Your task to perform on an android device: Open the stopwatch Image 0: 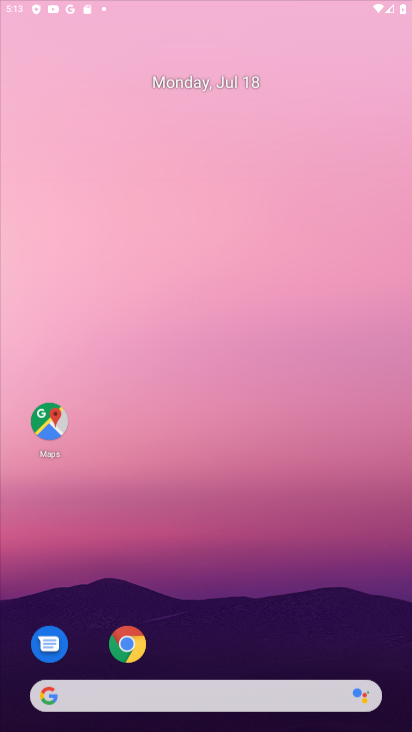
Step 0: press home button
Your task to perform on an android device: Open the stopwatch Image 1: 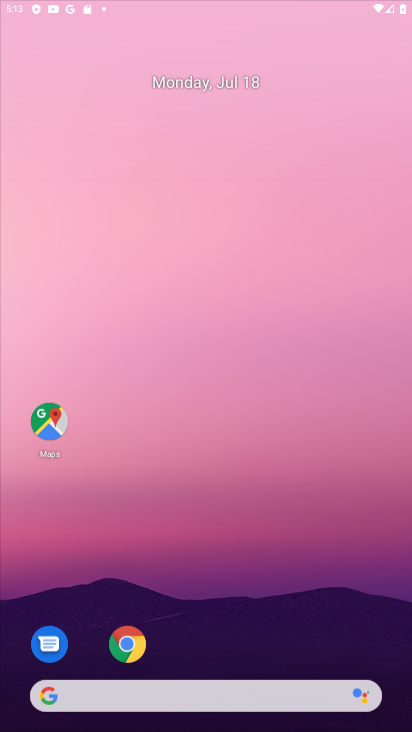
Step 1: drag from (168, 706) to (119, 18)
Your task to perform on an android device: Open the stopwatch Image 2: 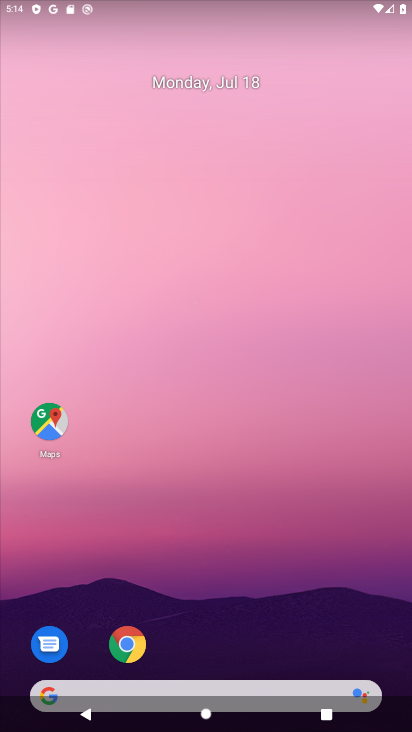
Step 2: drag from (195, 648) to (238, 9)
Your task to perform on an android device: Open the stopwatch Image 3: 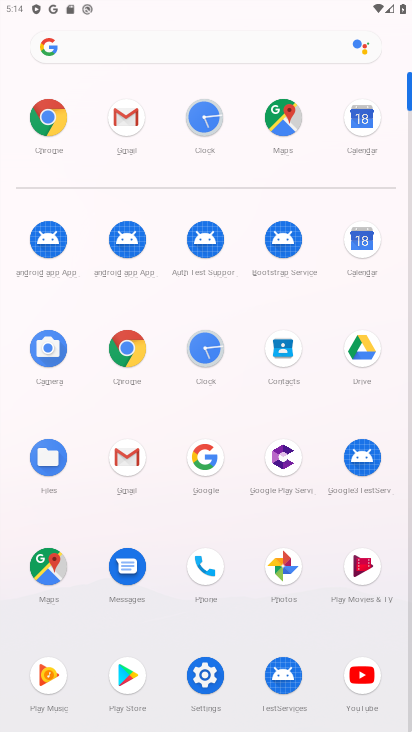
Step 3: click (202, 676)
Your task to perform on an android device: Open the stopwatch Image 4: 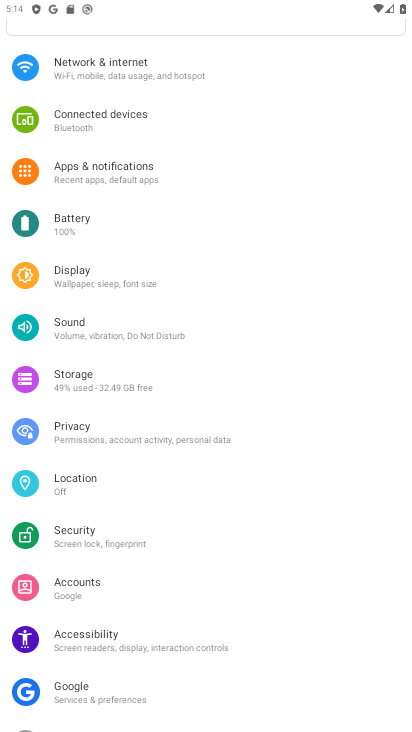
Step 4: press home button
Your task to perform on an android device: Open the stopwatch Image 5: 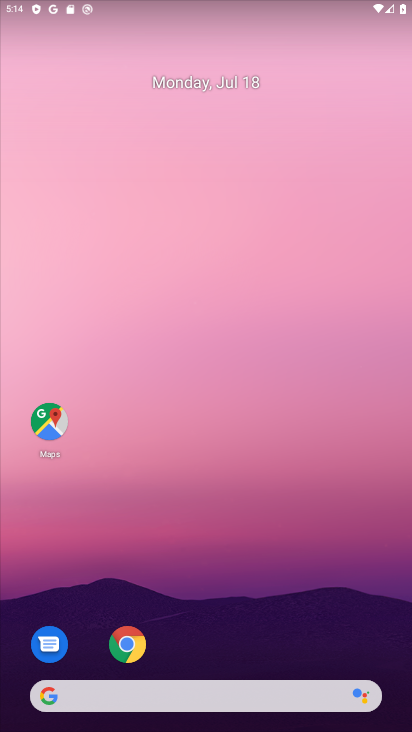
Step 5: drag from (251, 609) to (282, 73)
Your task to perform on an android device: Open the stopwatch Image 6: 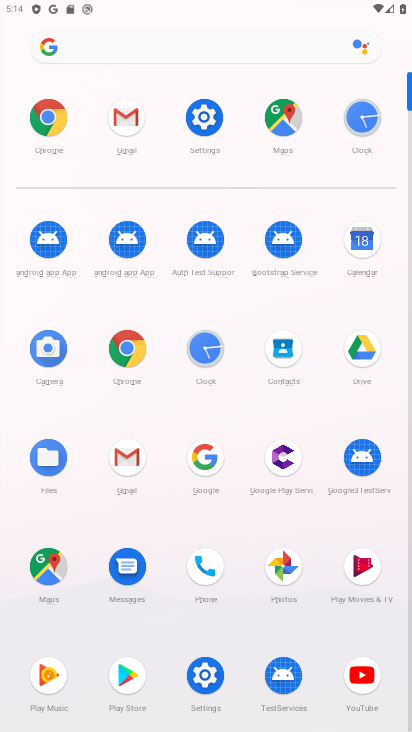
Step 6: click (198, 347)
Your task to perform on an android device: Open the stopwatch Image 7: 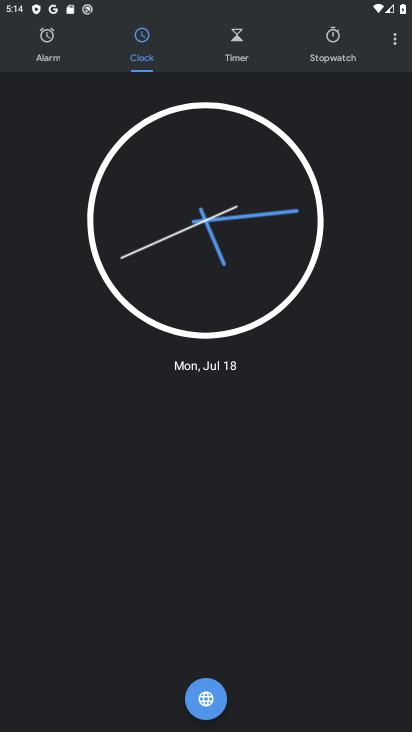
Step 7: click (337, 32)
Your task to perform on an android device: Open the stopwatch Image 8: 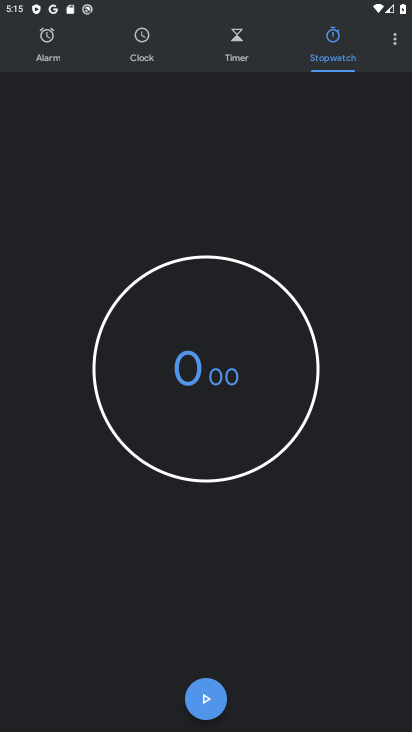
Step 8: task complete